Your task to perform on an android device: turn on sleep mode Image 0: 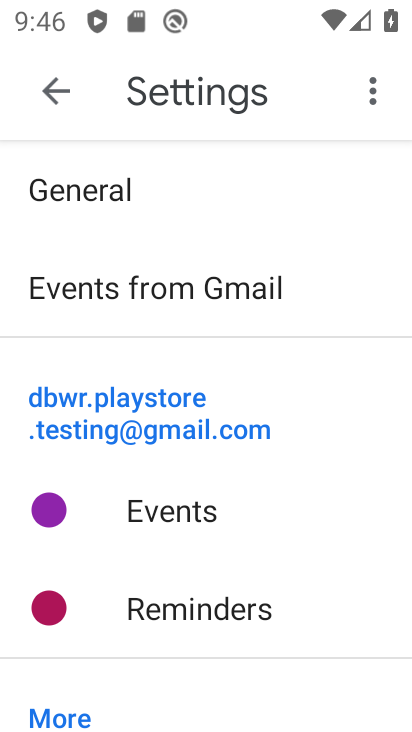
Step 0: press home button
Your task to perform on an android device: turn on sleep mode Image 1: 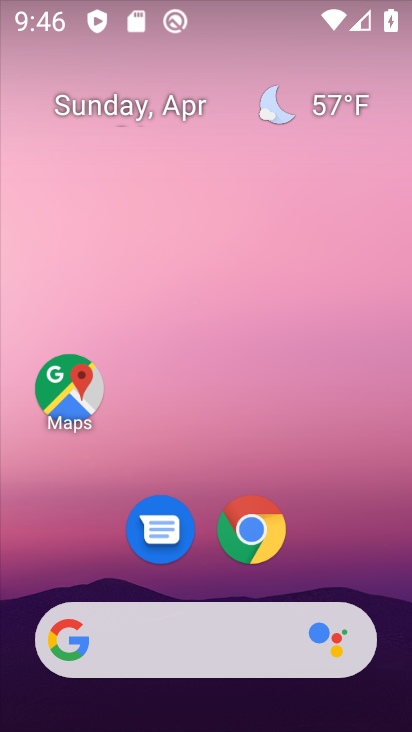
Step 1: drag from (331, 567) to (282, 22)
Your task to perform on an android device: turn on sleep mode Image 2: 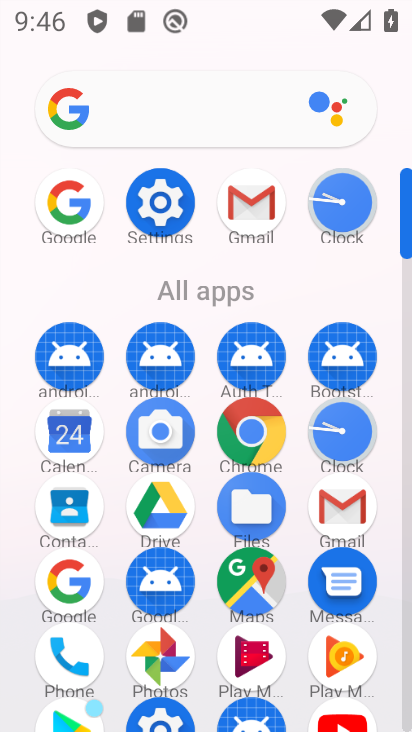
Step 2: click (162, 215)
Your task to perform on an android device: turn on sleep mode Image 3: 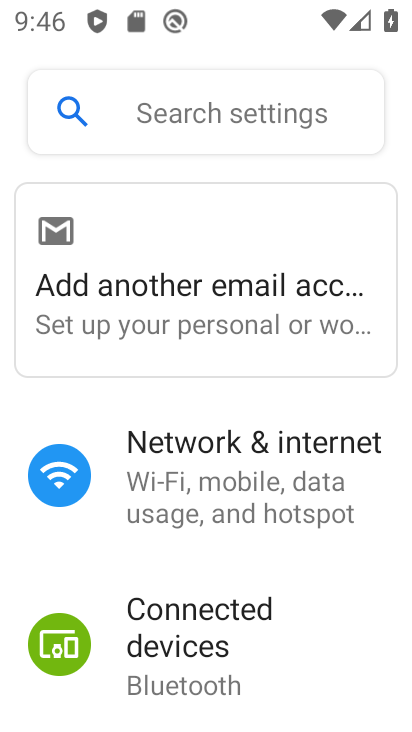
Step 3: drag from (315, 693) to (266, 241)
Your task to perform on an android device: turn on sleep mode Image 4: 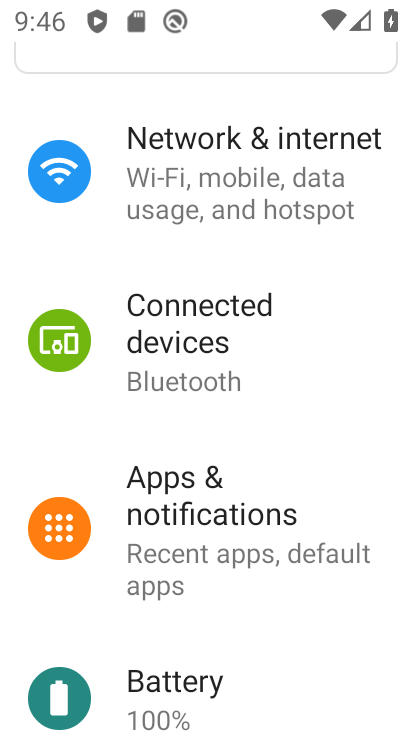
Step 4: drag from (295, 648) to (220, 72)
Your task to perform on an android device: turn on sleep mode Image 5: 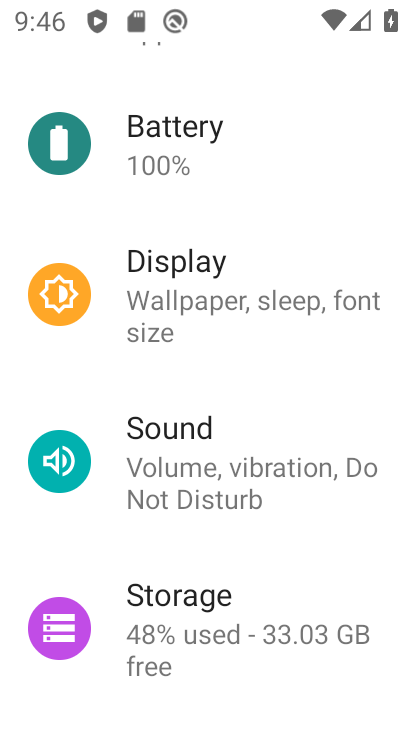
Step 5: click (210, 270)
Your task to perform on an android device: turn on sleep mode Image 6: 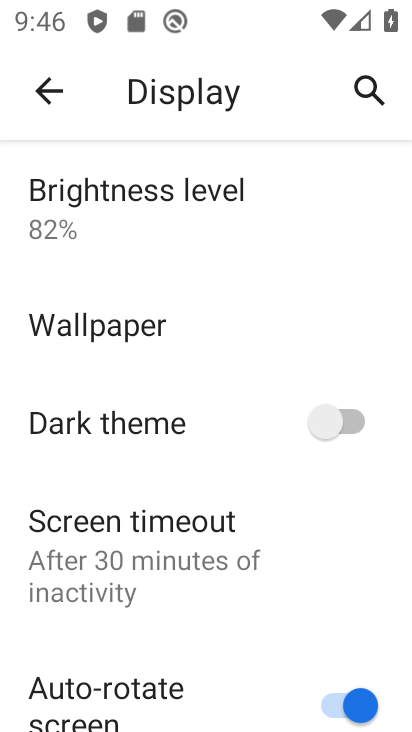
Step 6: task complete